Your task to perform on an android device: Open Youtube and go to "Your channel" Image 0: 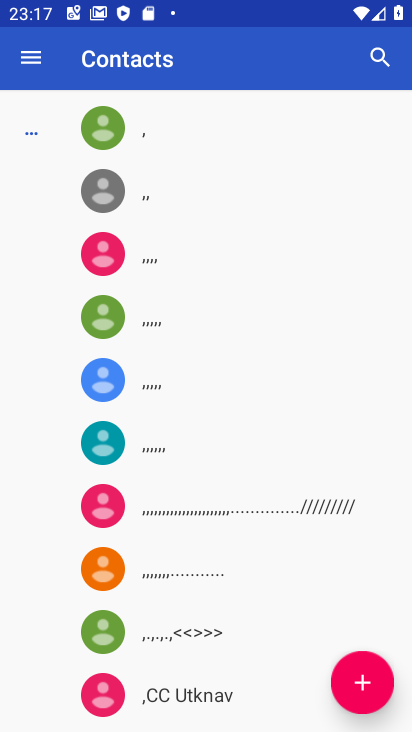
Step 0: press home button
Your task to perform on an android device: Open Youtube and go to "Your channel" Image 1: 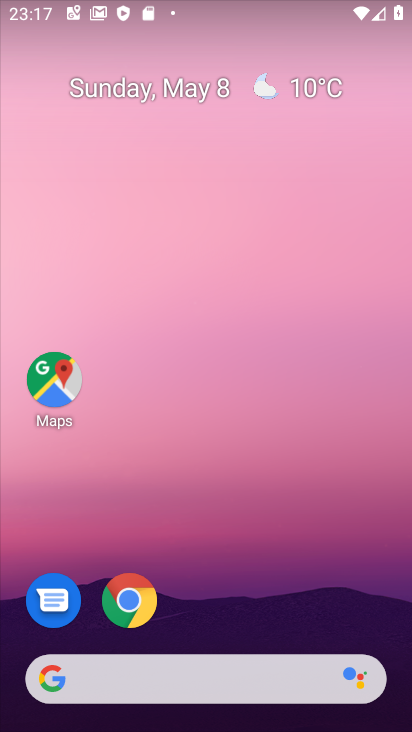
Step 1: drag from (210, 612) to (248, 195)
Your task to perform on an android device: Open Youtube and go to "Your channel" Image 2: 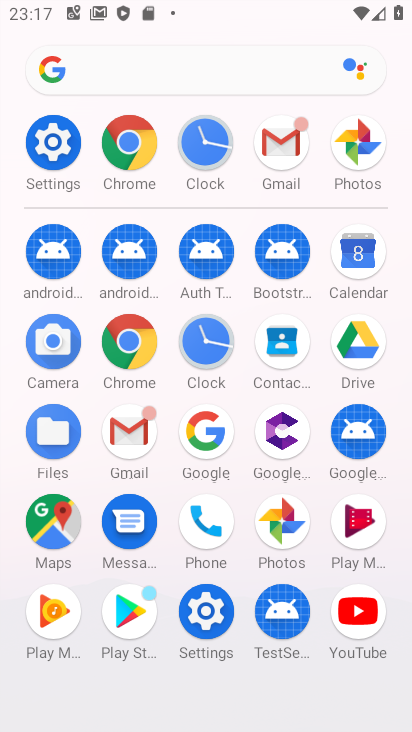
Step 2: click (356, 618)
Your task to perform on an android device: Open Youtube and go to "Your channel" Image 3: 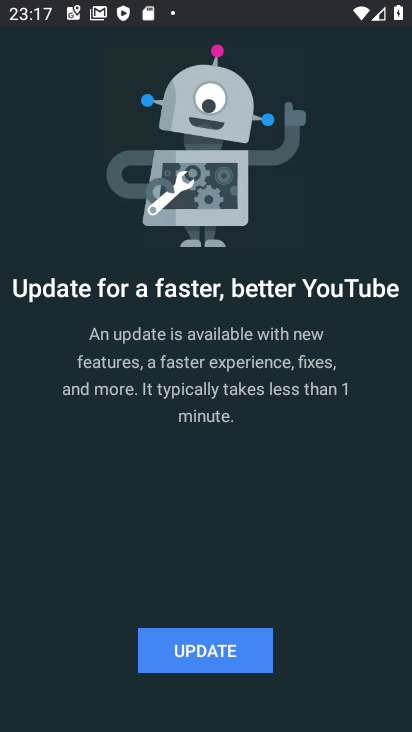
Step 3: click (193, 658)
Your task to perform on an android device: Open Youtube and go to "Your channel" Image 4: 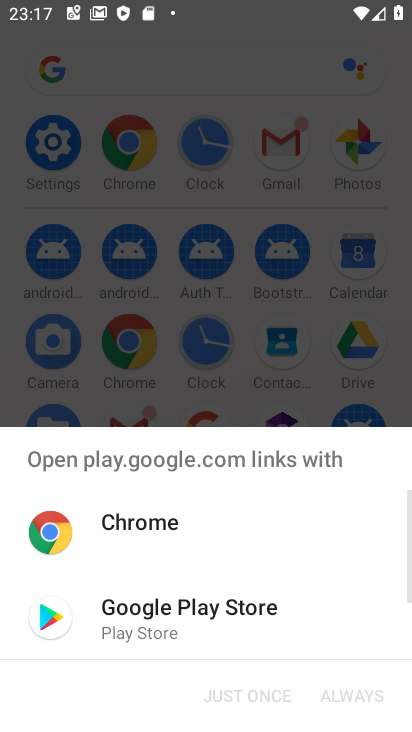
Step 4: click (199, 637)
Your task to perform on an android device: Open Youtube and go to "Your channel" Image 5: 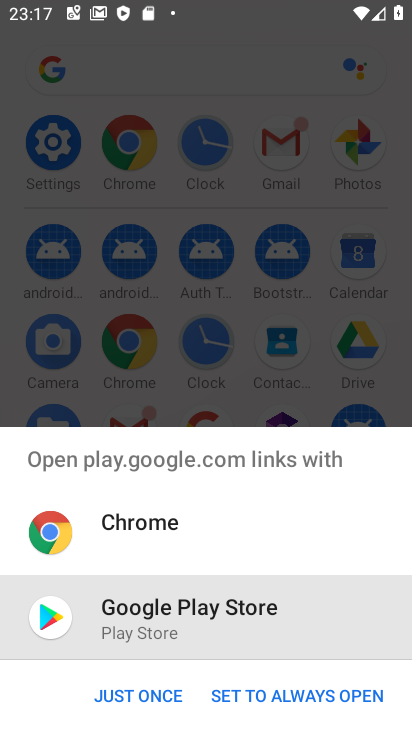
Step 5: click (130, 686)
Your task to perform on an android device: Open Youtube and go to "Your channel" Image 6: 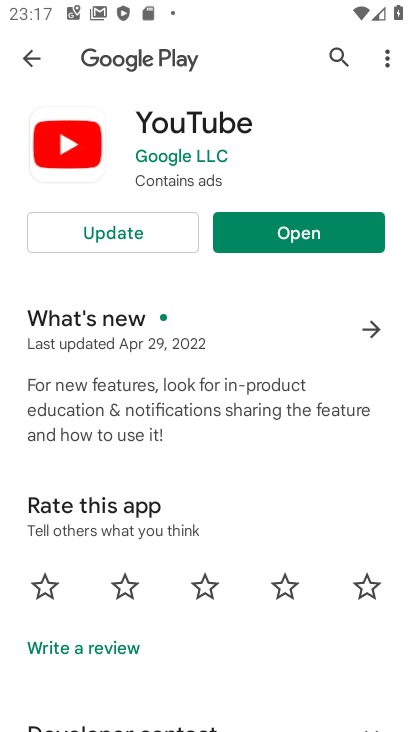
Step 6: click (131, 242)
Your task to perform on an android device: Open Youtube and go to "Your channel" Image 7: 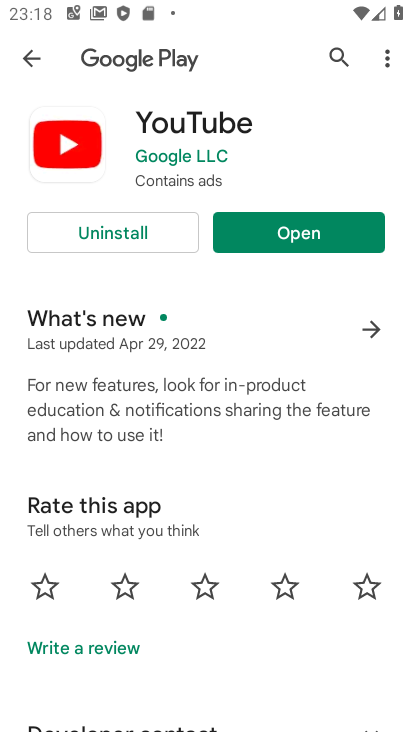
Step 7: click (333, 186)
Your task to perform on an android device: Open Youtube and go to "Your channel" Image 8: 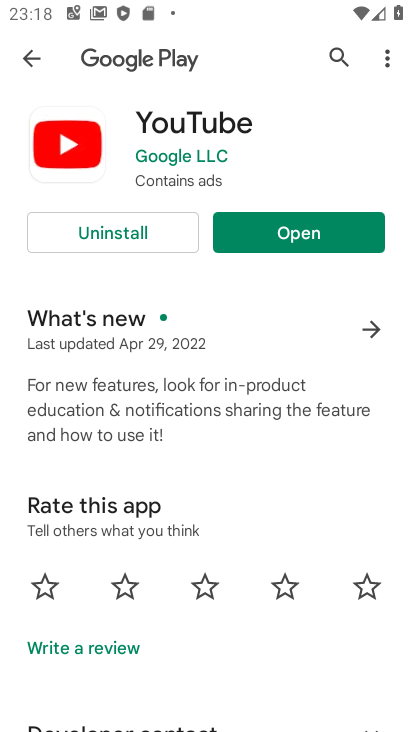
Step 8: click (282, 234)
Your task to perform on an android device: Open Youtube and go to "Your channel" Image 9: 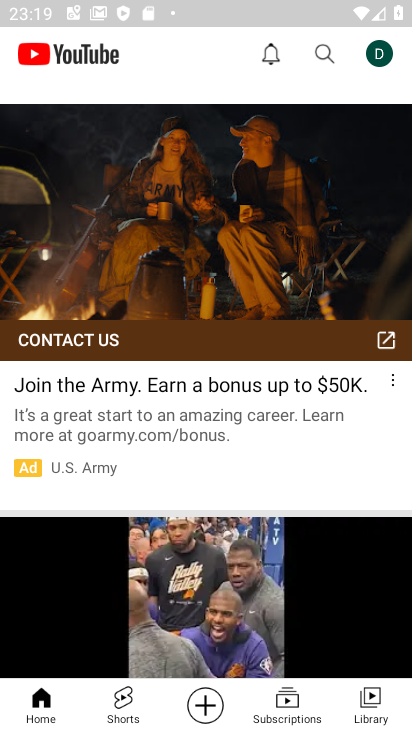
Step 9: click (330, 53)
Your task to perform on an android device: Open Youtube and go to "Your channel" Image 10: 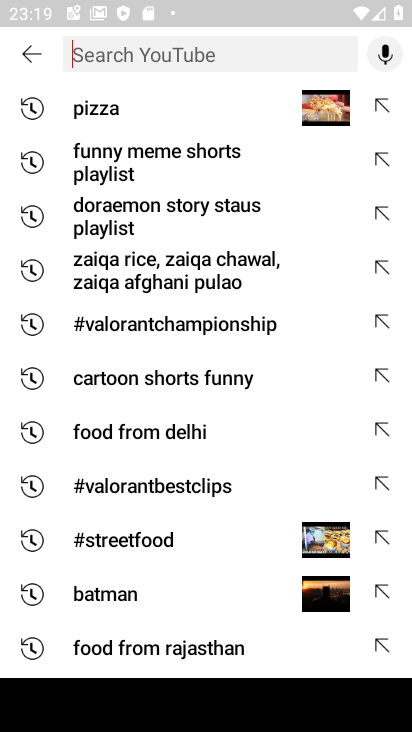
Step 10: type "your channel"
Your task to perform on an android device: Open Youtube and go to "Your channel" Image 11: 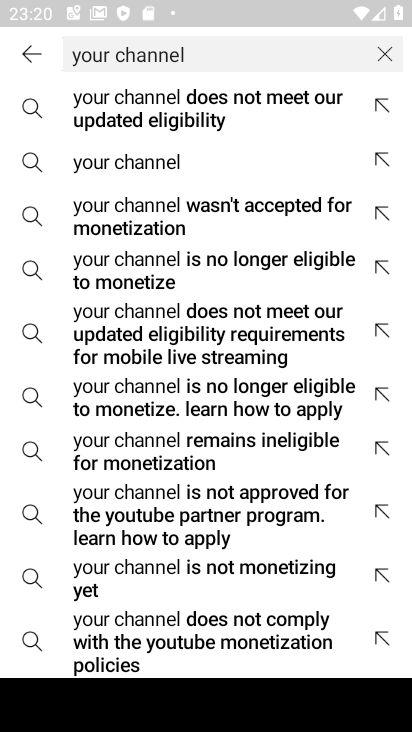
Step 11: click (173, 172)
Your task to perform on an android device: Open Youtube and go to "Your channel" Image 12: 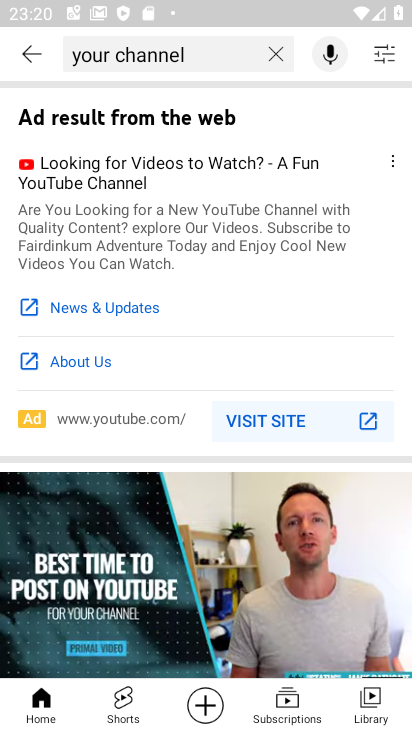
Step 12: task complete